Your task to perform on an android device: turn off priority inbox in the gmail app Image 0: 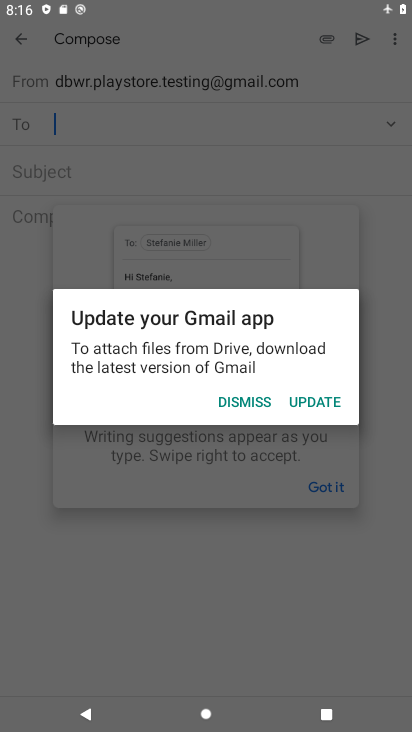
Step 0: press home button
Your task to perform on an android device: turn off priority inbox in the gmail app Image 1: 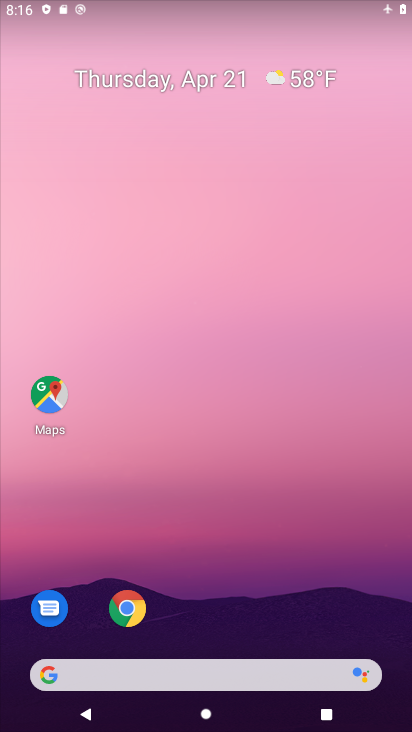
Step 1: drag from (289, 602) to (304, 38)
Your task to perform on an android device: turn off priority inbox in the gmail app Image 2: 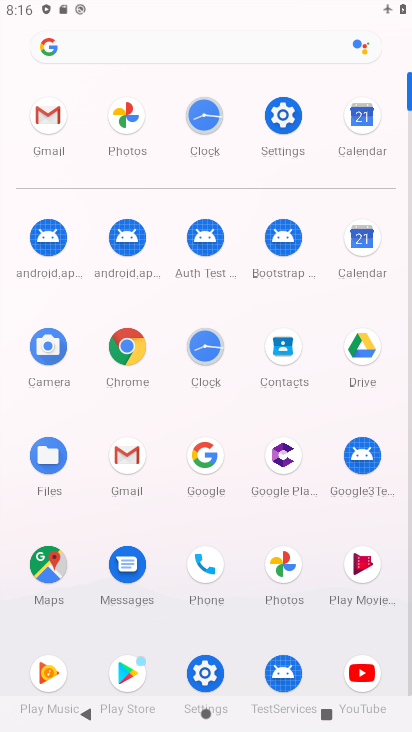
Step 2: click (47, 112)
Your task to perform on an android device: turn off priority inbox in the gmail app Image 3: 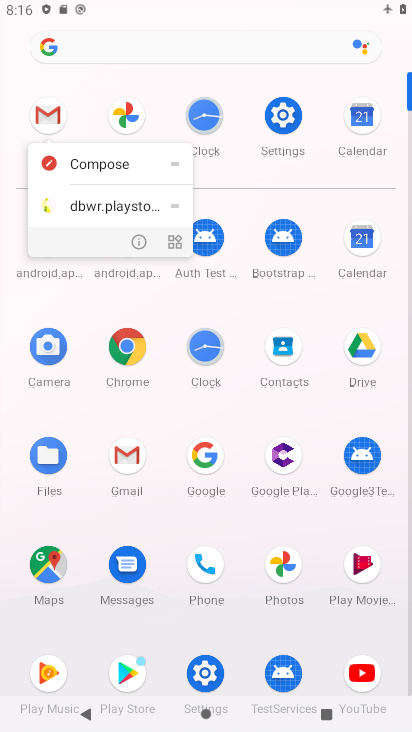
Step 3: click (50, 110)
Your task to perform on an android device: turn off priority inbox in the gmail app Image 4: 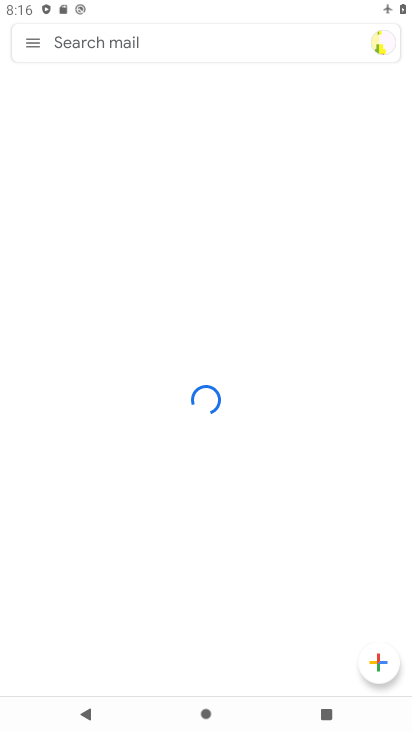
Step 4: click (35, 39)
Your task to perform on an android device: turn off priority inbox in the gmail app Image 5: 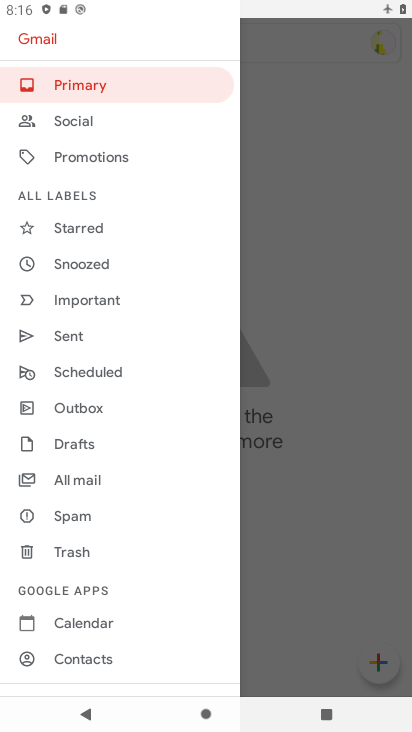
Step 5: drag from (164, 522) to (157, 316)
Your task to perform on an android device: turn off priority inbox in the gmail app Image 6: 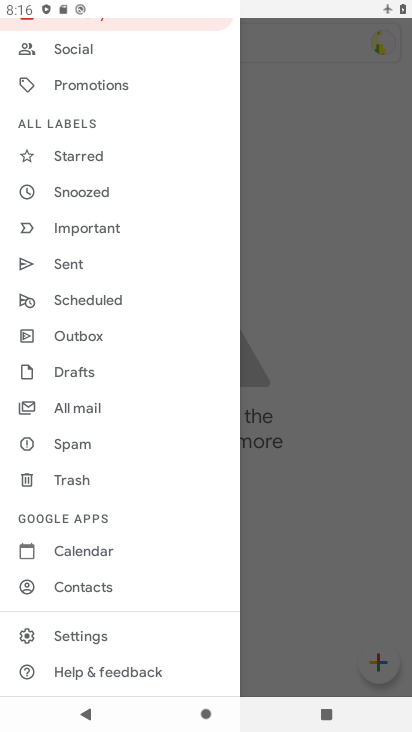
Step 6: click (95, 631)
Your task to perform on an android device: turn off priority inbox in the gmail app Image 7: 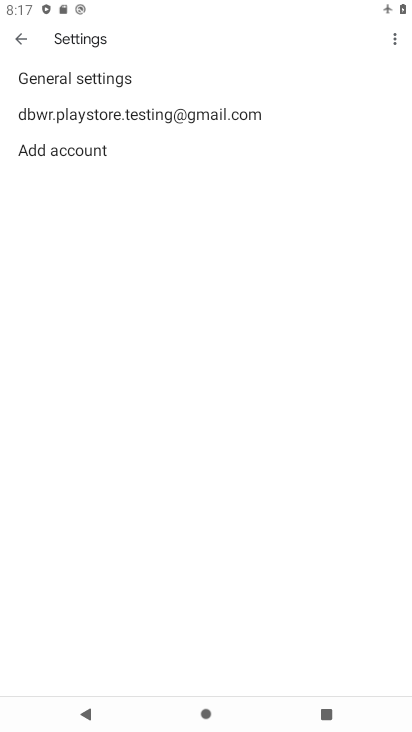
Step 7: click (197, 112)
Your task to perform on an android device: turn off priority inbox in the gmail app Image 8: 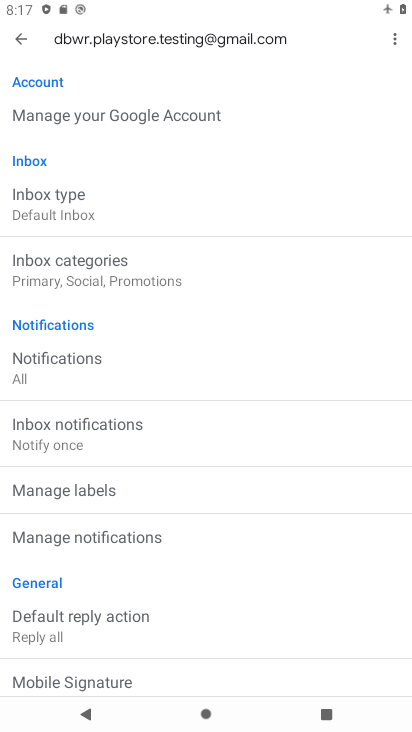
Step 8: task complete